Your task to perform on an android device: Go to eBay Image 0: 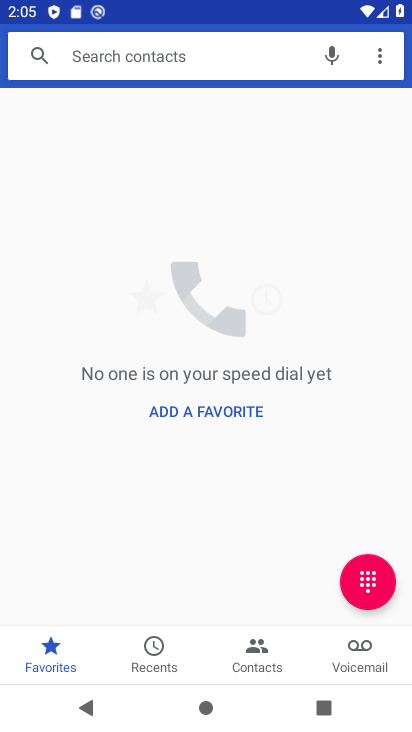
Step 0: press home button
Your task to perform on an android device: Go to eBay Image 1: 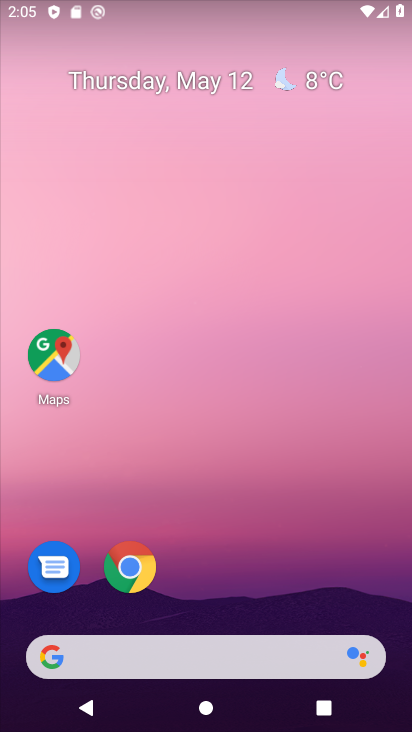
Step 1: click (142, 581)
Your task to perform on an android device: Go to eBay Image 2: 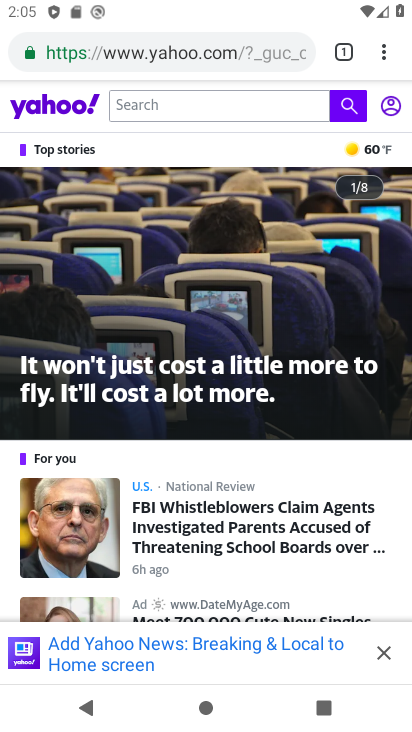
Step 2: click (177, 59)
Your task to perform on an android device: Go to eBay Image 3: 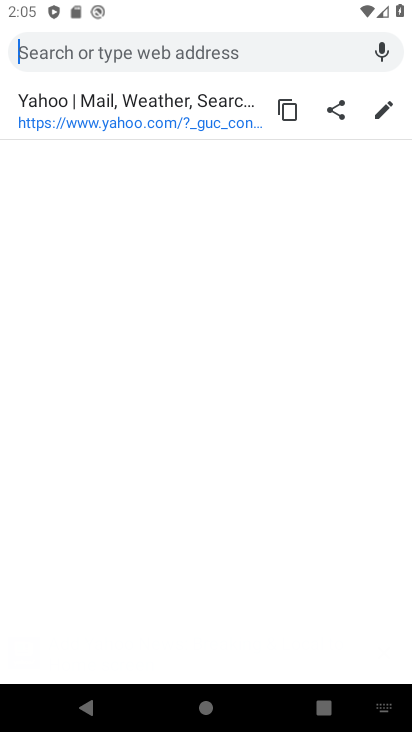
Step 3: type "ebay"
Your task to perform on an android device: Go to eBay Image 4: 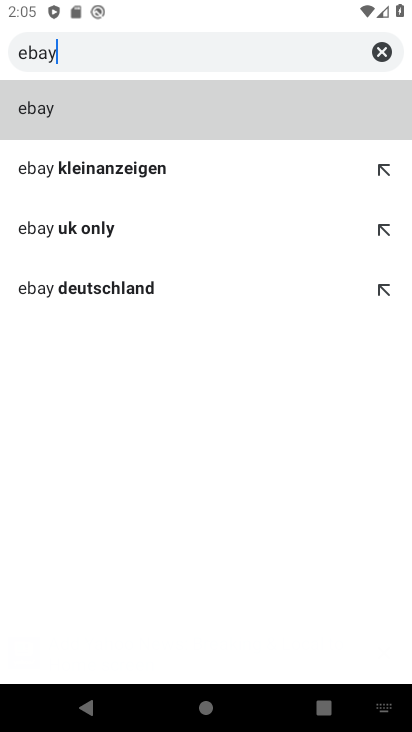
Step 4: click (39, 125)
Your task to perform on an android device: Go to eBay Image 5: 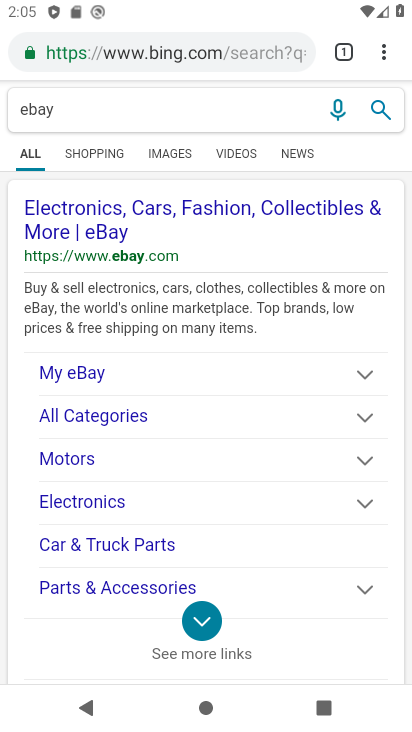
Step 5: click (84, 243)
Your task to perform on an android device: Go to eBay Image 6: 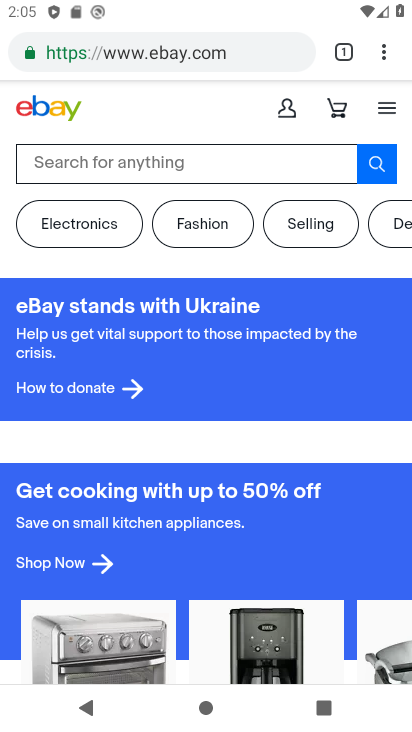
Step 6: task complete